Your task to perform on an android device: Open Youtube and go to "Your channel" Image 0: 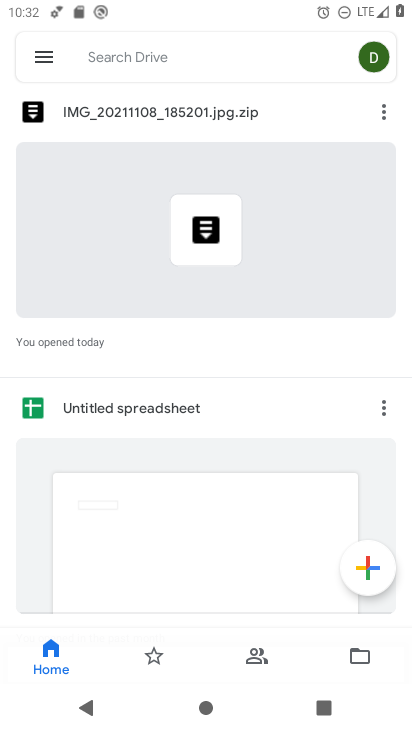
Step 0: press home button
Your task to perform on an android device: Open Youtube and go to "Your channel" Image 1: 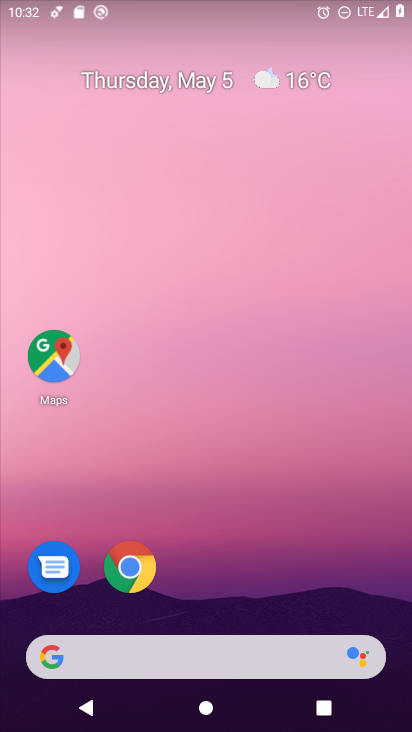
Step 1: drag from (240, 496) to (265, 15)
Your task to perform on an android device: Open Youtube and go to "Your channel" Image 2: 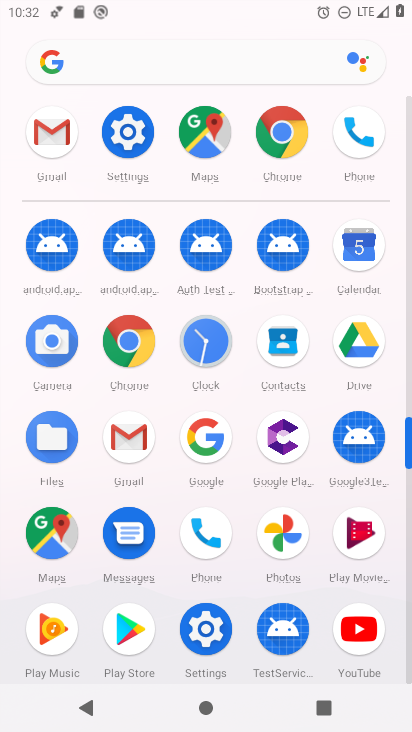
Step 2: click (356, 626)
Your task to perform on an android device: Open Youtube and go to "Your channel" Image 3: 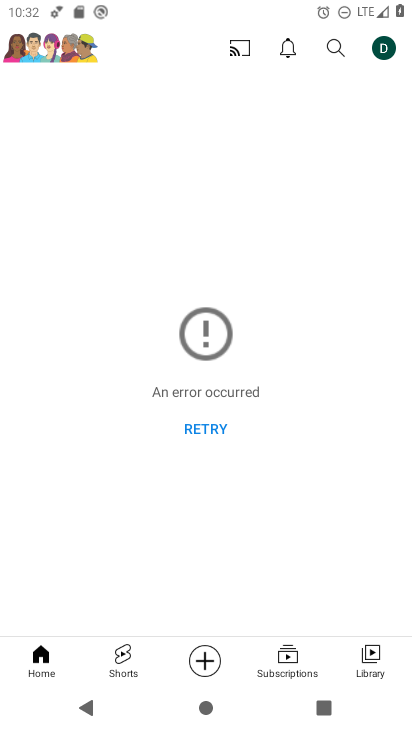
Step 3: click (382, 45)
Your task to perform on an android device: Open Youtube and go to "Your channel" Image 4: 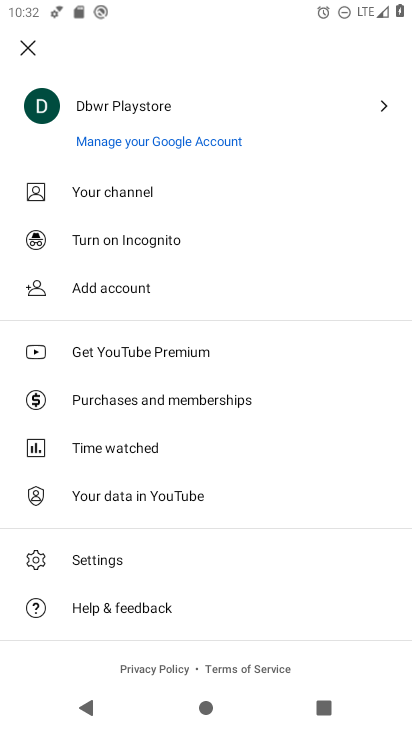
Step 4: click (155, 195)
Your task to perform on an android device: Open Youtube and go to "Your channel" Image 5: 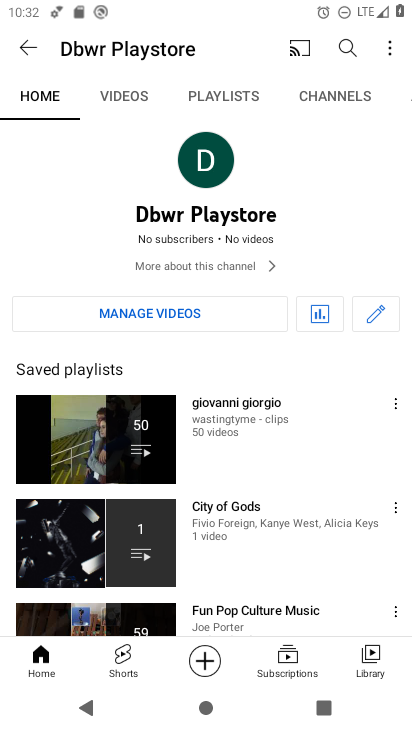
Step 5: task complete